Your task to perform on an android device: see sites visited before in the chrome app Image 0: 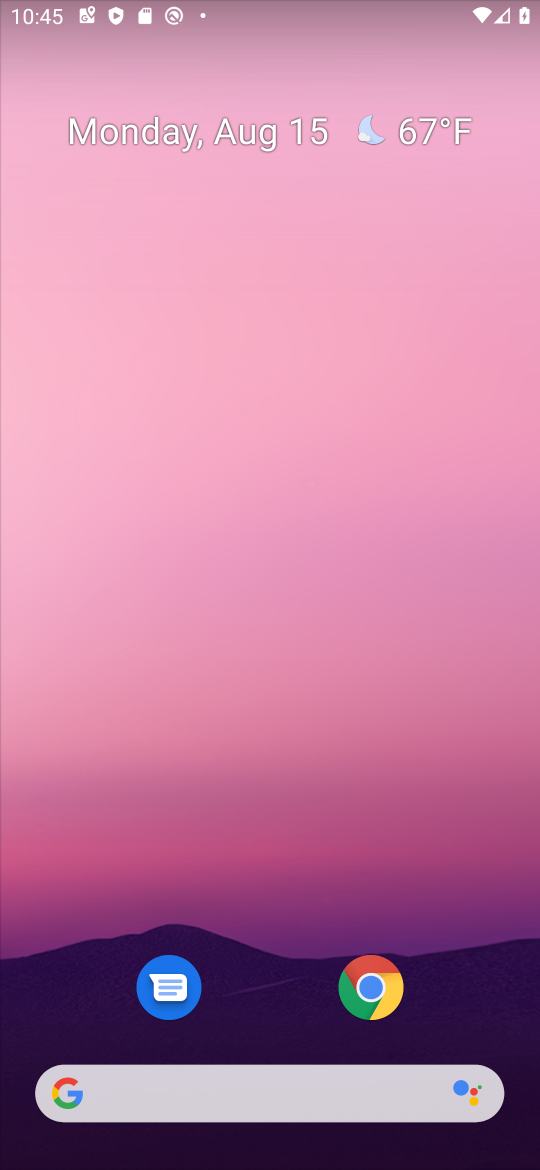
Step 0: drag from (235, 1063) to (122, 232)
Your task to perform on an android device: see sites visited before in the chrome app Image 1: 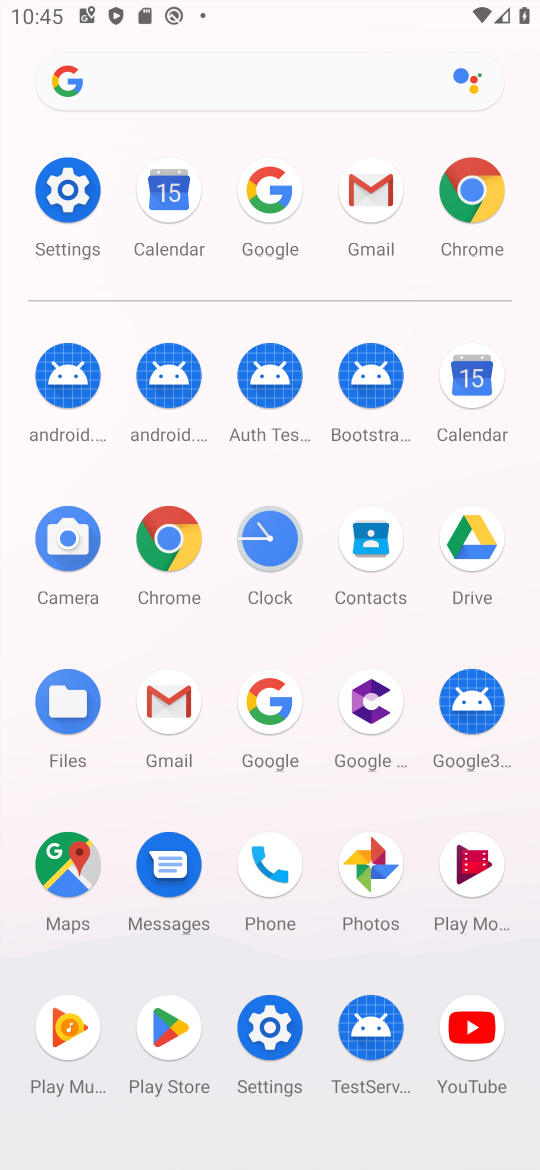
Step 1: click (174, 537)
Your task to perform on an android device: see sites visited before in the chrome app Image 2: 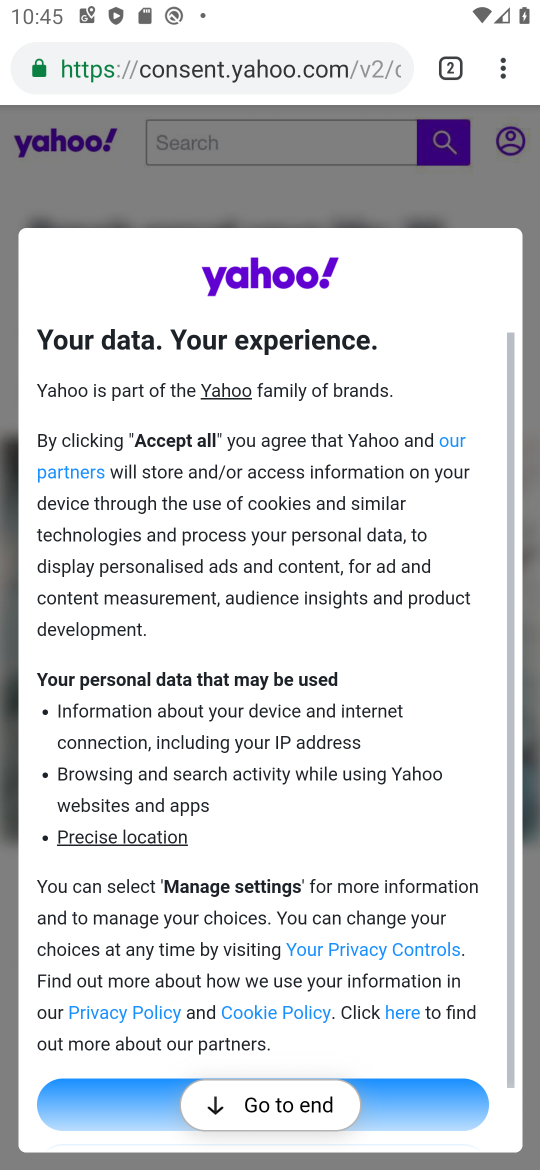
Step 2: click (311, 1107)
Your task to perform on an android device: see sites visited before in the chrome app Image 3: 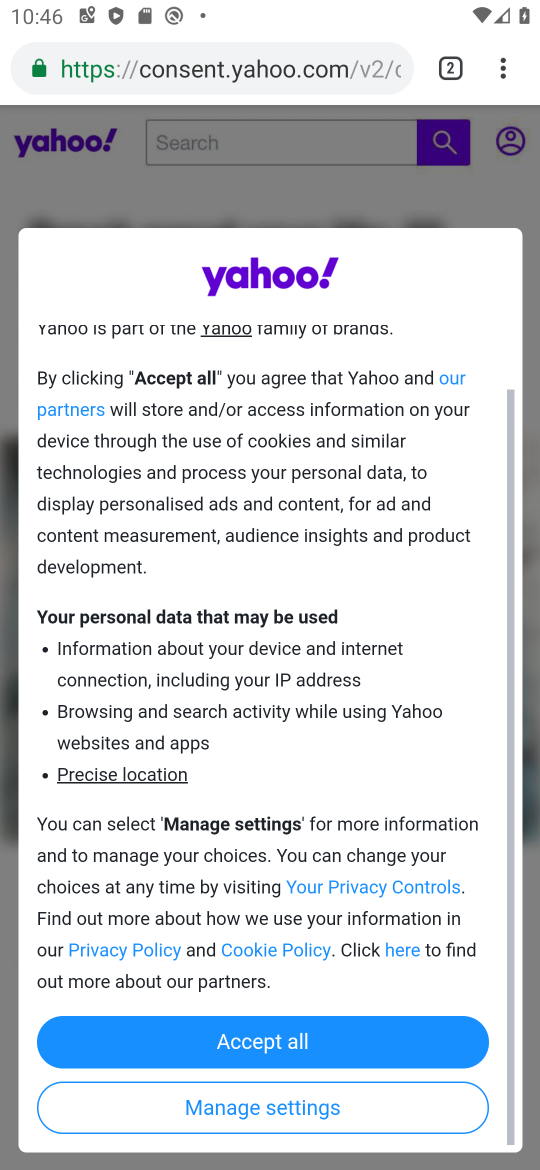
Step 3: click (360, 1048)
Your task to perform on an android device: see sites visited before in the chrome app Image 4: 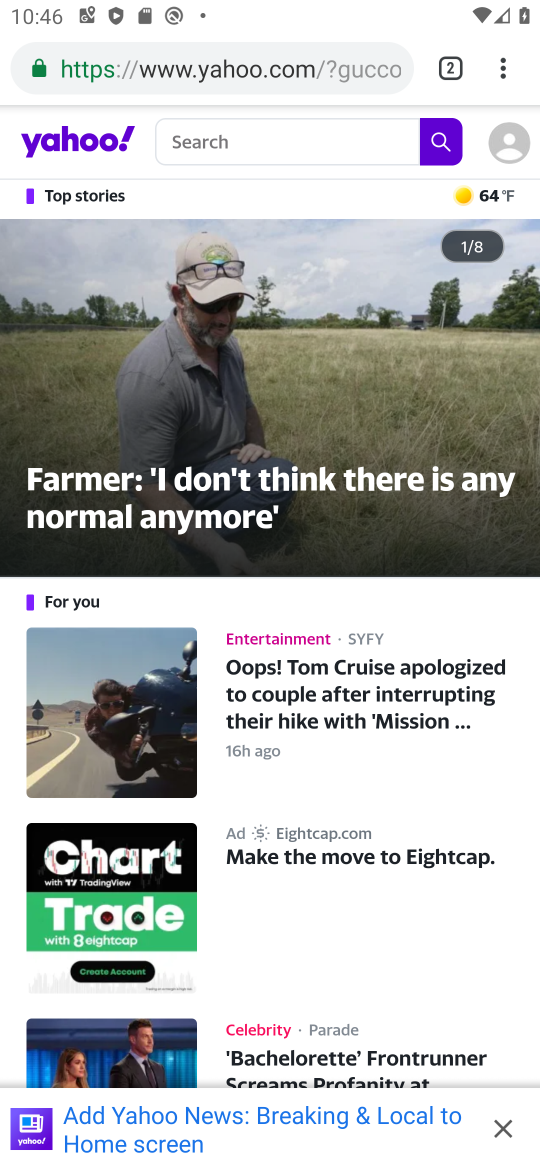
Step 4: task complete